Your task to perform on an android device: Turn on the flashlight Image 0: 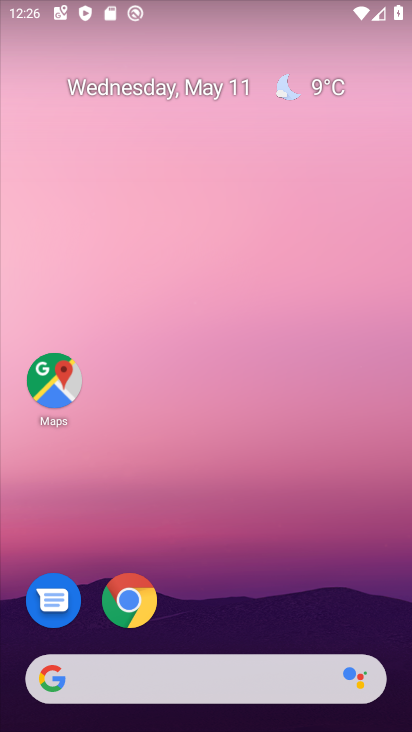
Step 0: drag from (276, 90) to (276, 702)
Your task to perform on an android device: Turn on the flashlight Image 1: 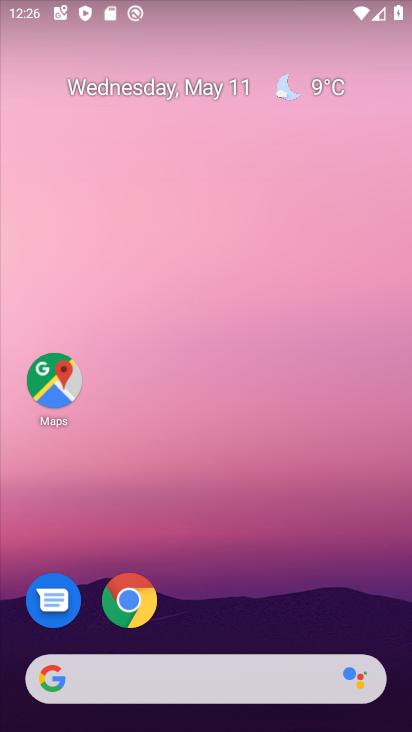
Step 1: task complete